Your task to perform on an android device: change the clock display to show seconds Image 0: 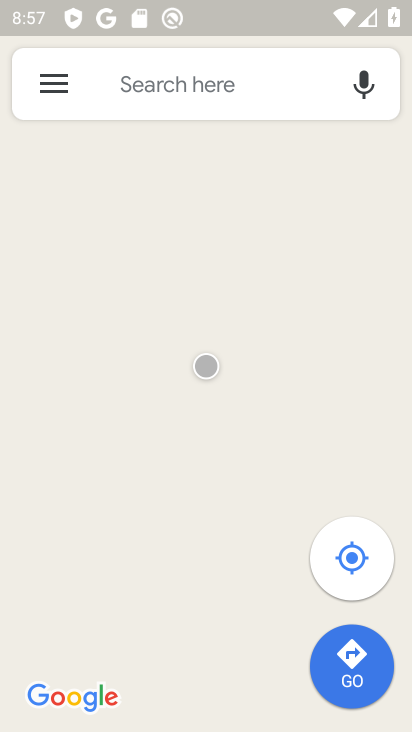
Step 0: press home button
Your task to perform on an android device: change the clock display to show seconds Image 1: 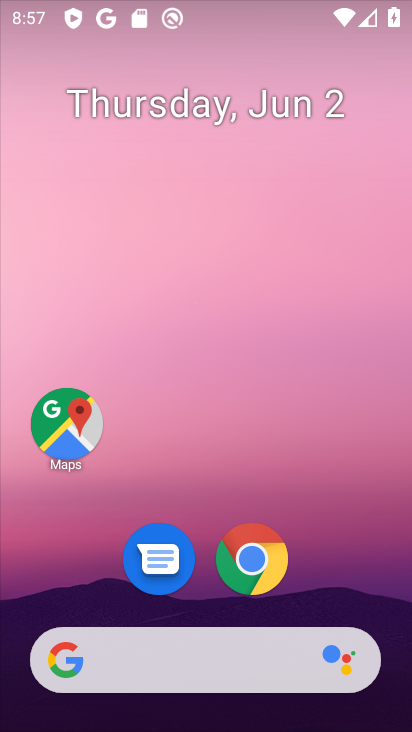
Step 1: drag from (162, 721) to (263, 196)
Your task to perform on an android device: change the clock display to show seconds Image 2: 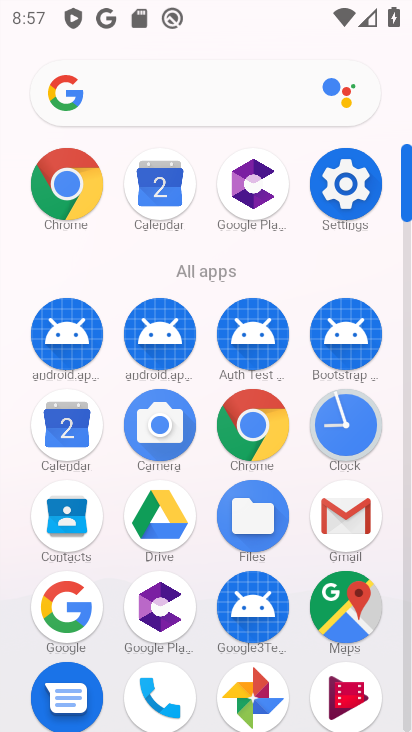
Step 2: click (363, 412)
Your task to perform on an android device: change the clock display to show seconds Image 3: 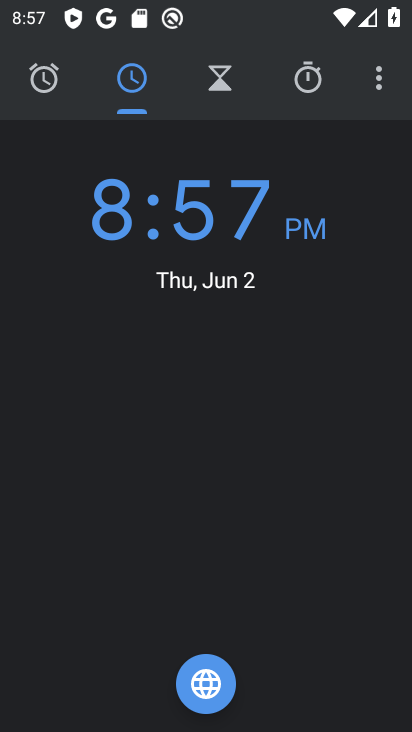
Step 3: click (383, 73)
Your task to perform on an android device: change the clock display to show seconds Image 4: 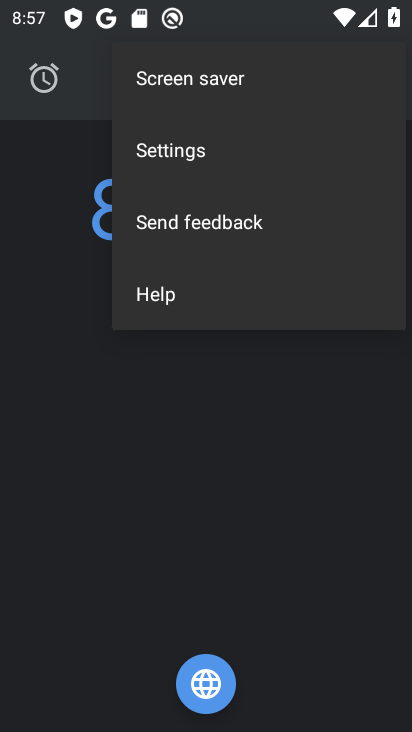
Step 4: click (233, 147)
Your task to perform on an android device: change the clock display to show seconds Image 5: 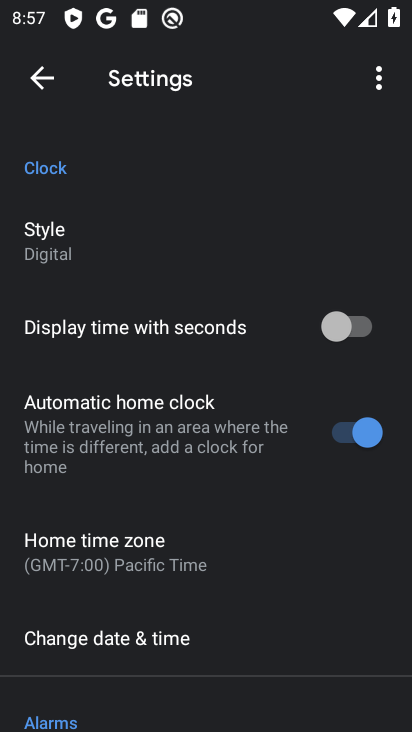
Step 5: click (349, 320)
Your task to perform on an android device: change the clock display to show seconds Image 6: 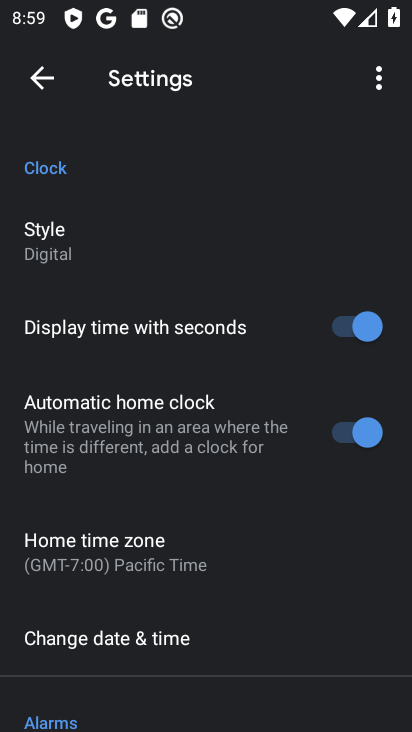
Step 6: task complete